Your task to perform on an android device: Open the calendar app, open the side menu, and click the "Day" option Image 0: 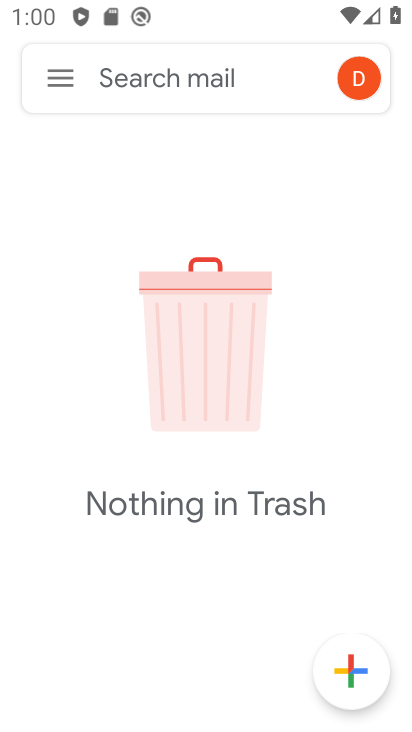
Step 0: press home button
Your task to perform on an android device: Open the calendar app, open the side menu, and click the "Day" option Image 1: 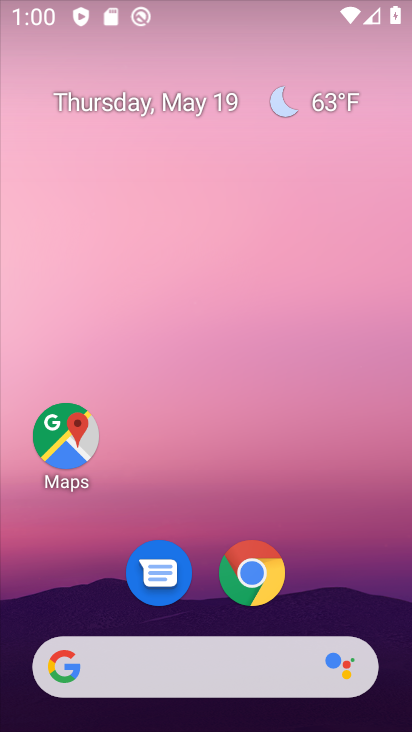
Step 1: drag from (331, 568) to (300, 208)
Your task to perform on an android device: Open the calendar app, open the side menu, and click the "Day" option Image 2: 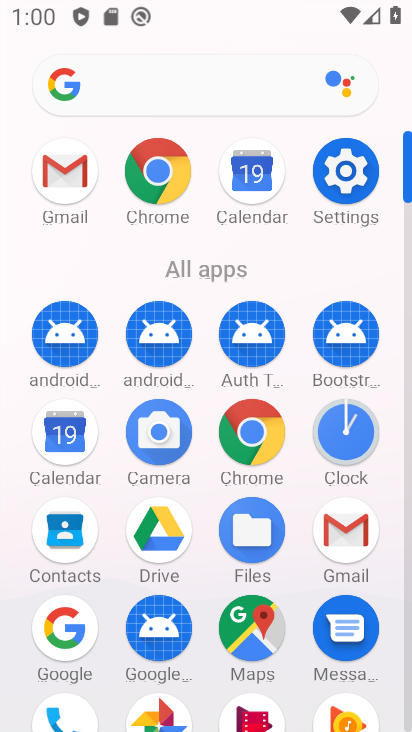
Step 2: click (70, 430)
Your task to perform on an android device: Open the calendar app, open the side menu, and click the "Day" option Image 3: 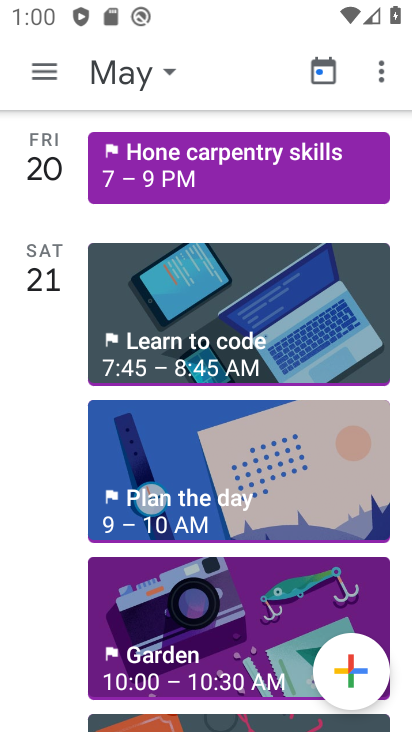
Step 3: click (42, 71)
Your task to perform on an android device: Open the calendar app, open the side menu, and click the "Day" option Image 4: 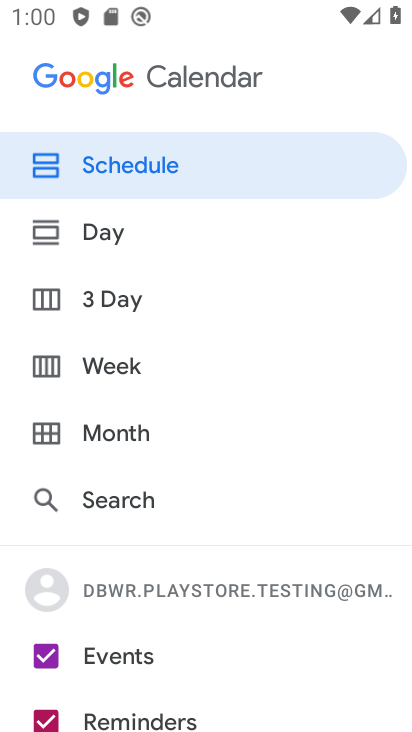
Step 4: click (131, 228)
Your task to perform on an android device: Open the calendar app, open the side menu, and click the "Day" option Image 5: 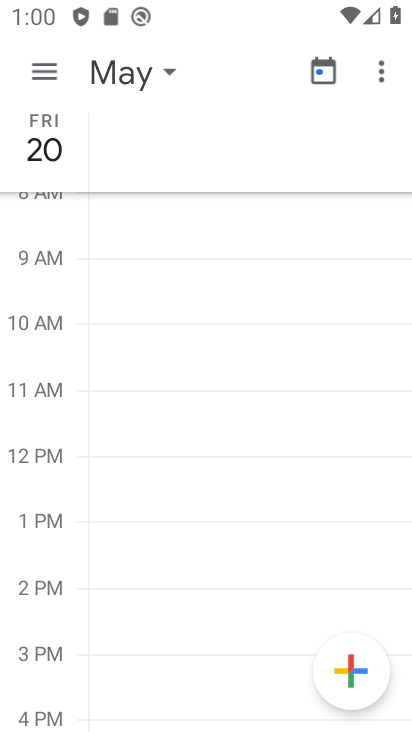
Step 5: task complete